Your task to perform on an android device: toggle airplane mode Image 0: 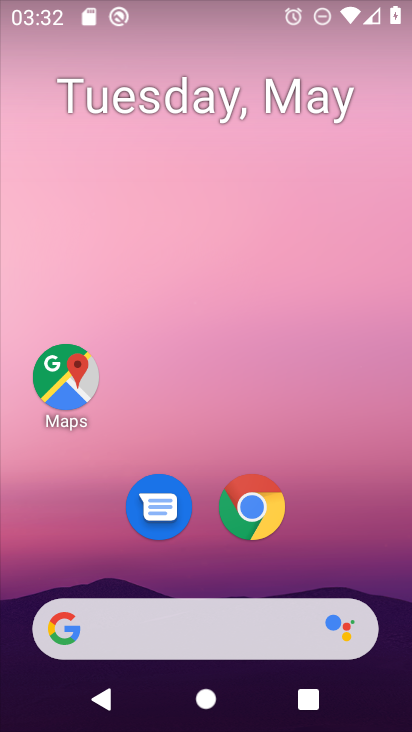
Step 0: drag from (210, 565) to (255, 259)
Your task to perform on an android device: toggle airplane mode Image 1: 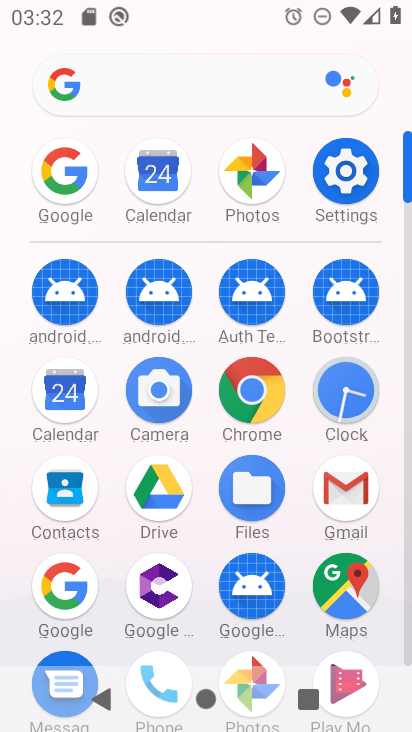
Step 1: click (361, 180)
Your task to perform on an android device: toggle airplane mode Image 2: 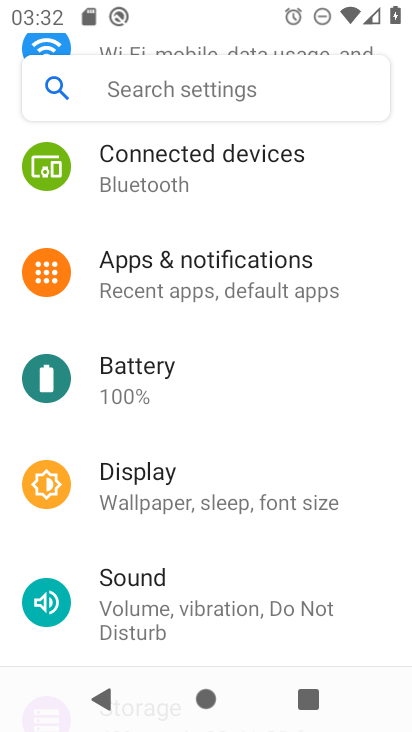
Step 2: drag from (228, 208) to (226, 566)
Your task to perform on an android device: toggle airplane mode Image 3: 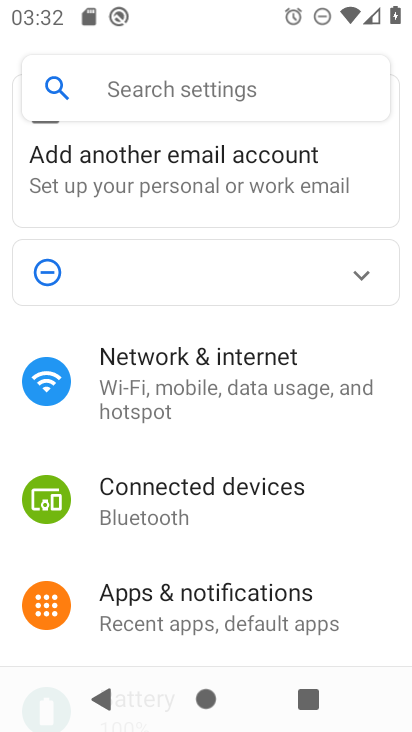
Step 3: click (197, 346)
Your task to perform on an android device: toggle airplane mode Image 4: 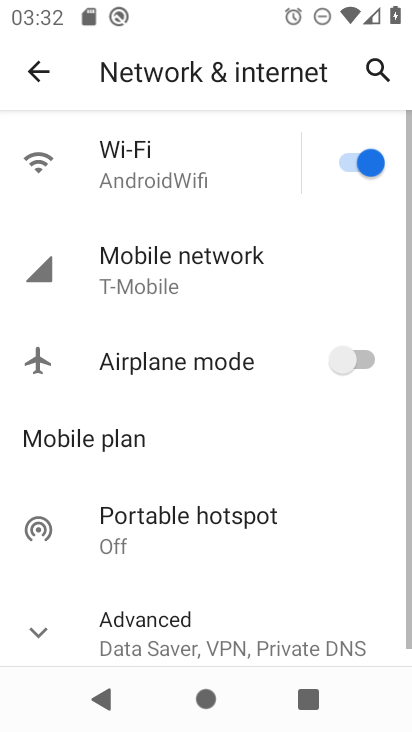
Step 4: click (367, 359)
Your task to perform on an android device: toggle airplane mode Image 5: 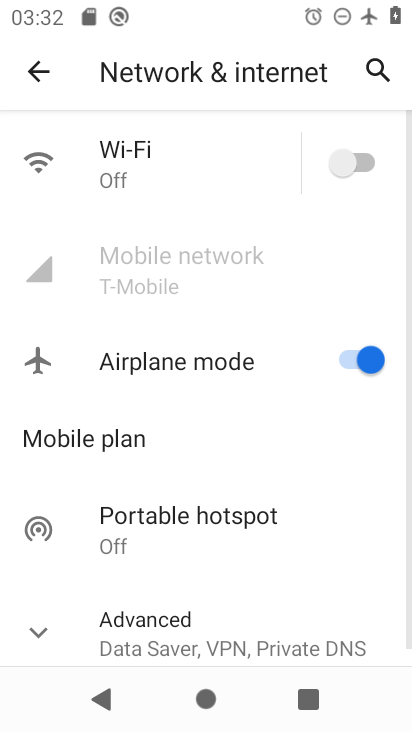
Step 5: task complete